Your task to perform on an android device: Check the weather Image 0: 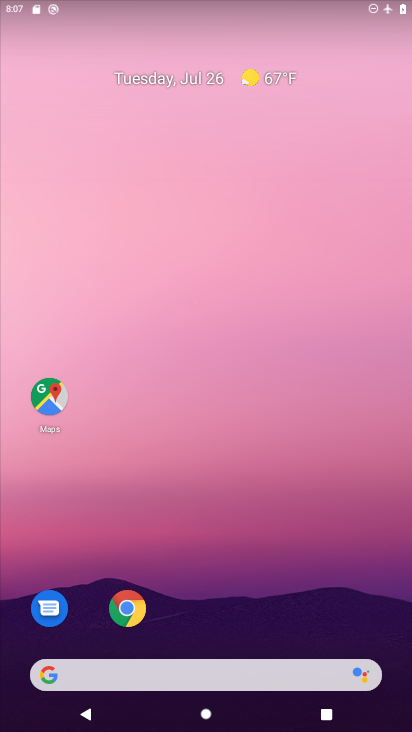
Step 0: click (186, 680)
Your task to perform on an android device: Check the weather Image 1: 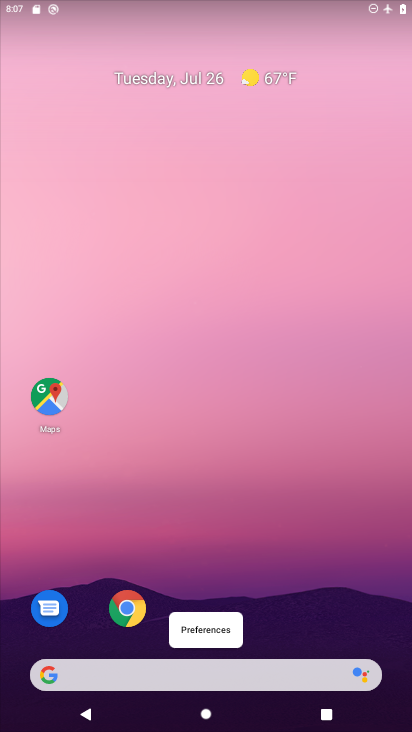
Step 1: click (182, 670)
Your task to perform on an android device: Check the weather Image 2: 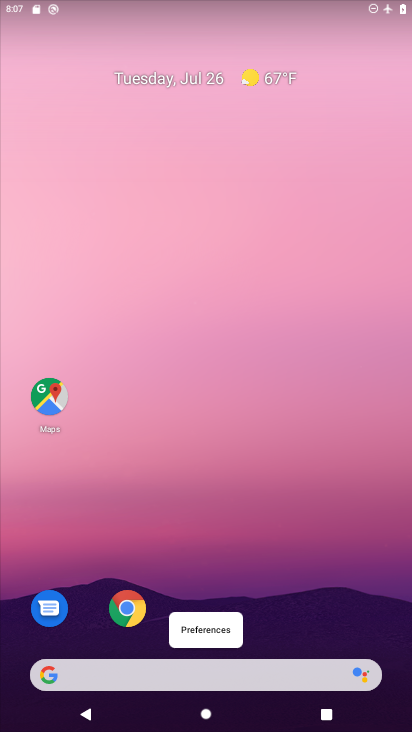
Step 2: click (120, 678)
Your task to perform on an android device: Check the weather Image 3: 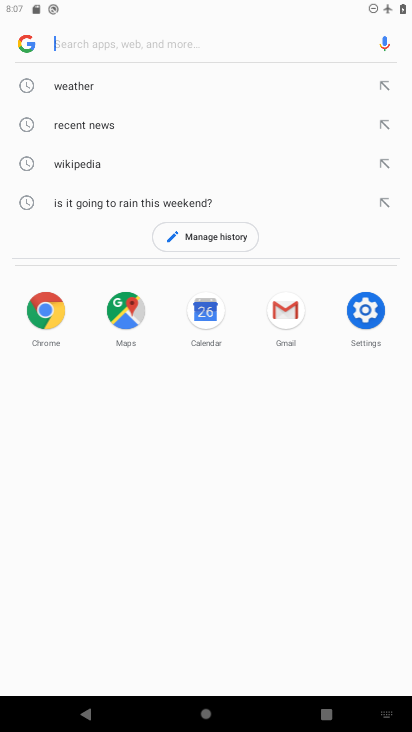
Step 3: click (86, 85)
Your task to perform on an android device: Check the weather Image 4: 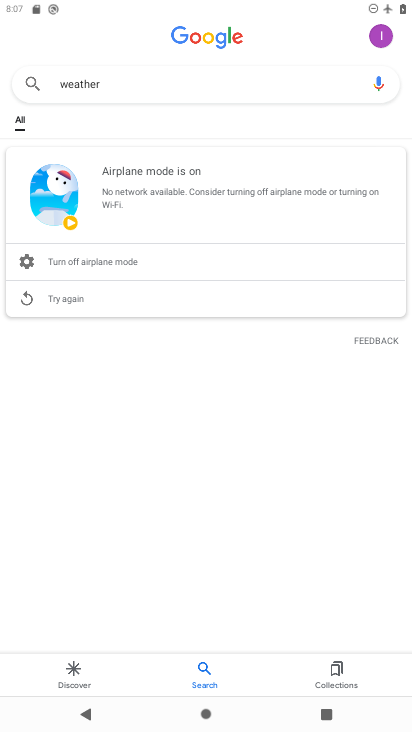
Step 4: task complete